Your task to perform on an android device: search for starred emails in the gmail app Image 0: 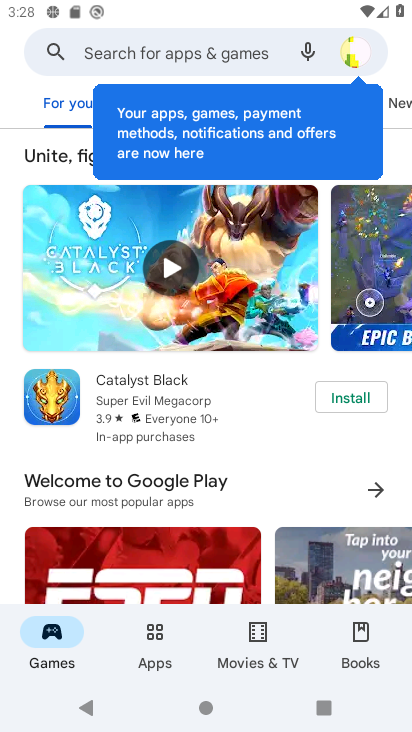
Step 0: press home button
Your task to perform on an android device: search for starred emails in the gmail app Image 1: 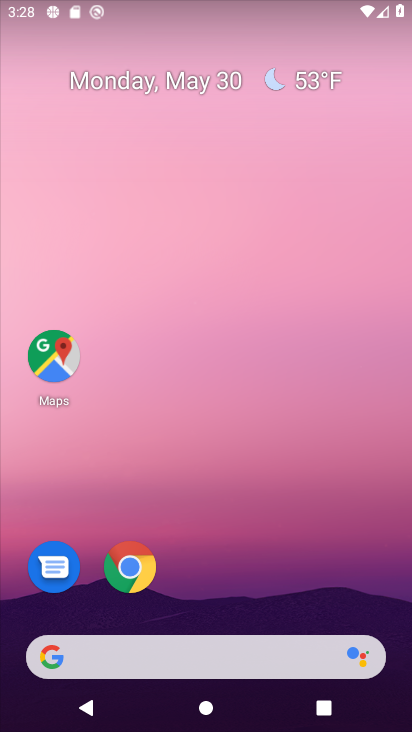
Step 1: drag from (240, 596) to (277, 37)
Your task to perform on an android device: search for starred emails in the gmail app Image 2: 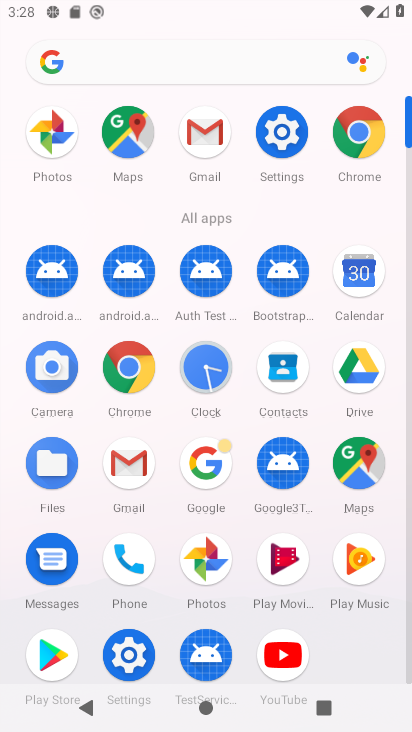
Step 2: click (130, 469)
Your task to perform on an android device: search for starred emails in the gmail app Image 3: 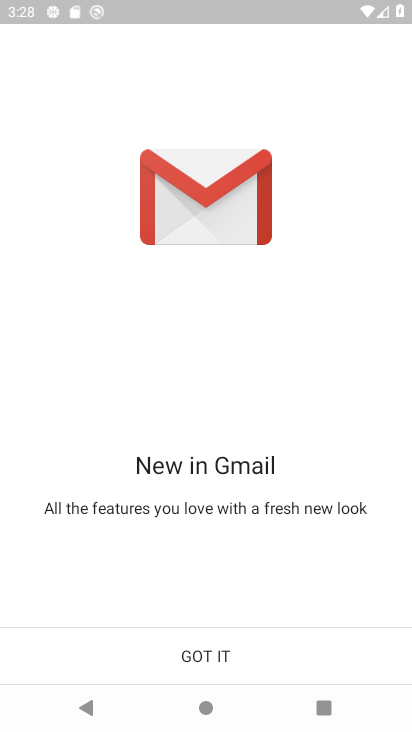
Step 3: click (286, 653)
Your task to perform on an android device: search for starred emails in the gmail app Image 4: 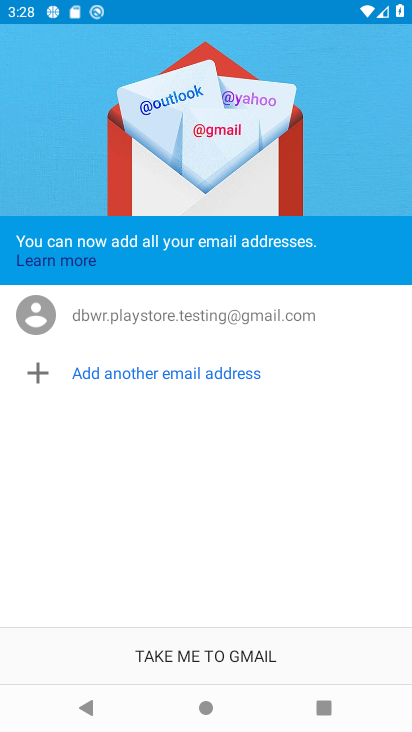
Step 4: click (286, 653)
Your task to perform on an android device: search for starred emails in the gmail app Image 5: 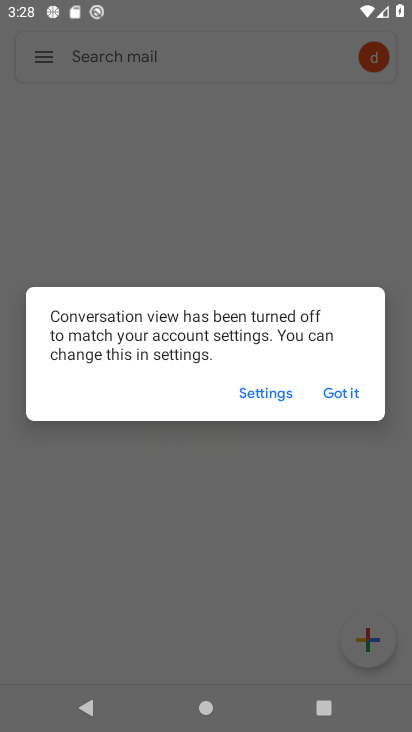
Step 5: click (280, 404)
Your task to perform on an android device: search for starred emails in the gmail app Image 6: 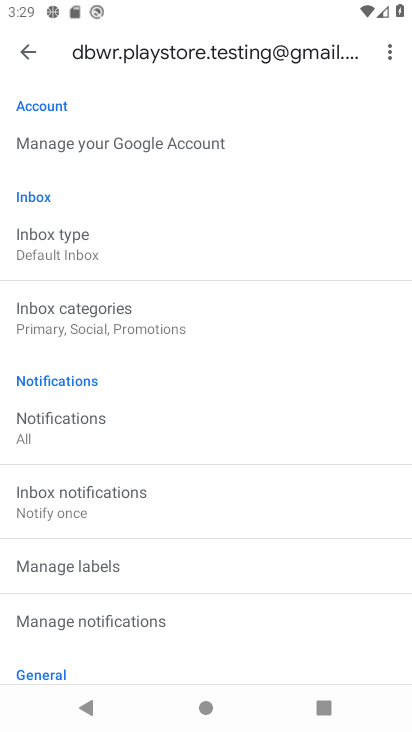
Step 6: press back button
Your task to perform on an android device: search for starred emails in the gmail app Image 7: 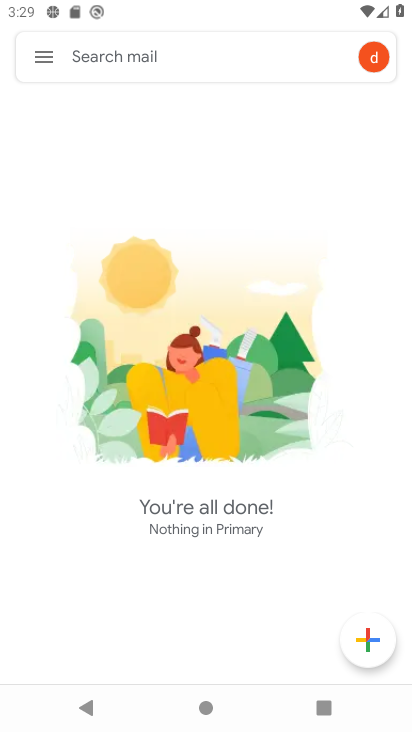
Step 7: click (58, 46)
Your task to perform on an android device: search for starred emails in the gmail app Image 8: 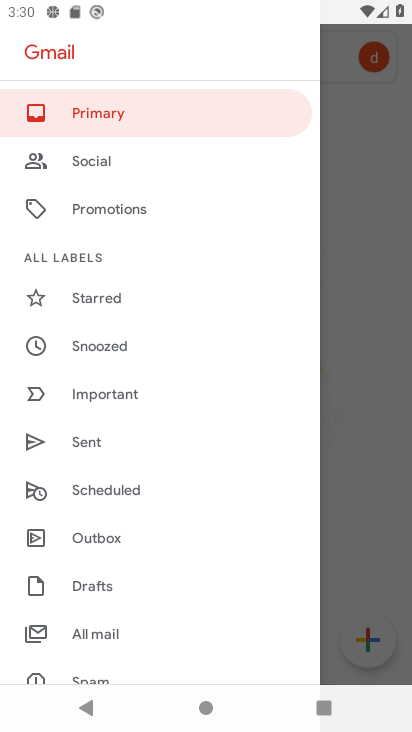
Step 8: click (117, 301)
Your task to perform on an android device: search for starred emails in the gmail app Image 9: 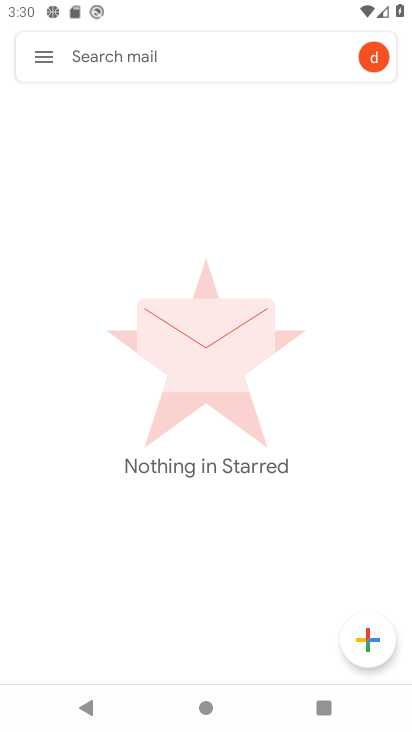
Step 9: task complete